Your task to perform on an android device: Open the web browser Image 0: 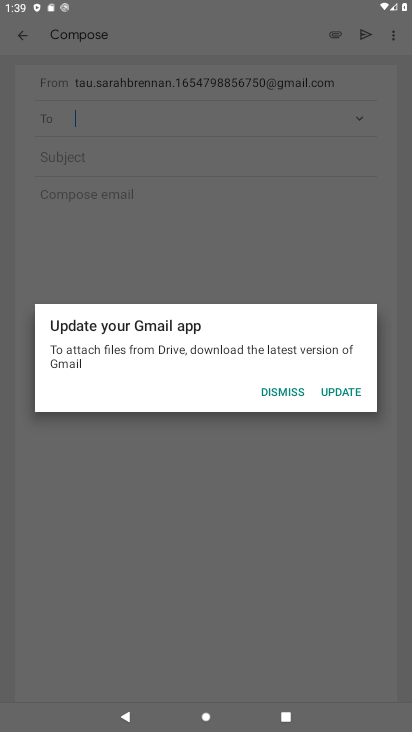
Step 0: press home button
Your task to perform on an android device: Open the web browser Image 1: 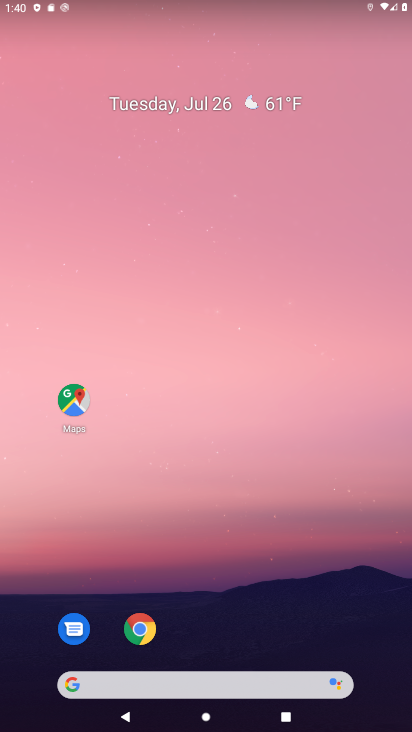
Step 1: click (198, 687)
Your task to perform on an android device: Open the web browser Image 2: 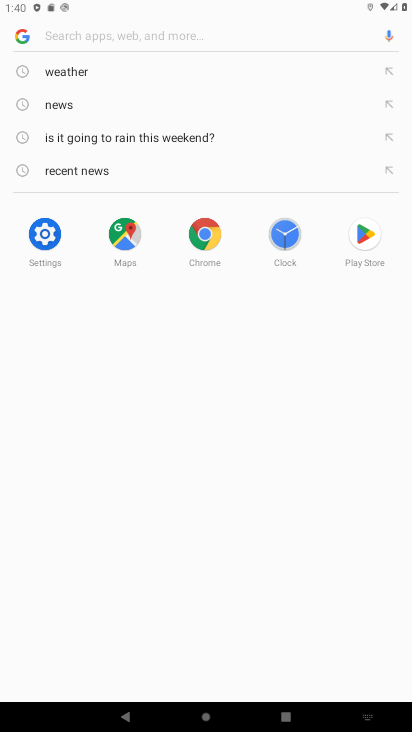
Step 2: task complete